Your task to perform on an android device: toggle javascript in the chrome app Image 0: 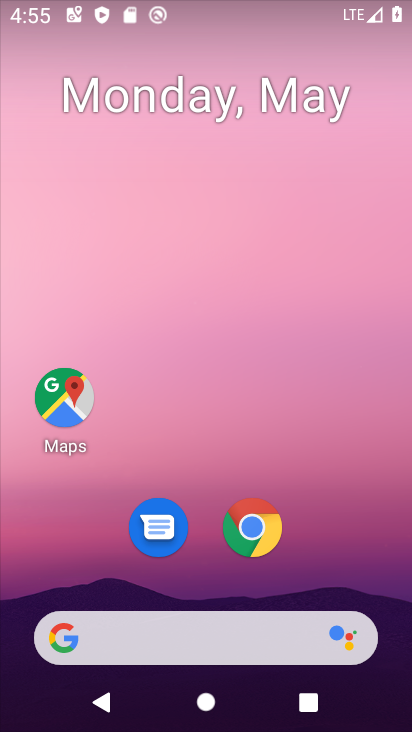
Step 0: press home button
Your task to perform on an android device: toggle javascript in the chrome app Image 1: 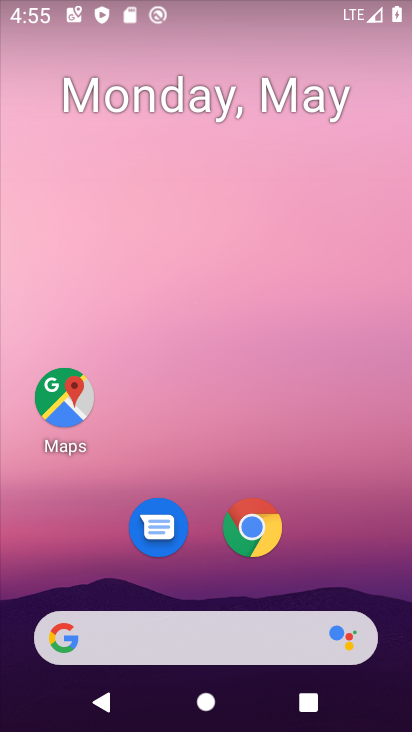
Step 1: click (266, 533)
Your task to perform on an android device: toggle javascript in the chrome app Image 2: 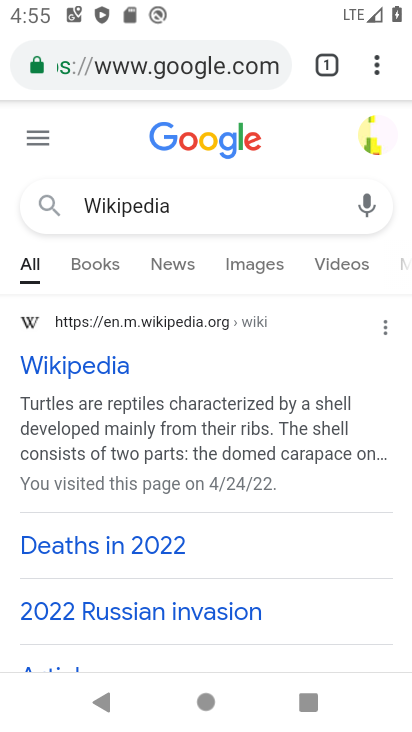
Step 2: click (377, 60)
Your task to perform on an android device: toggle javascript in the chrome app Image 3: 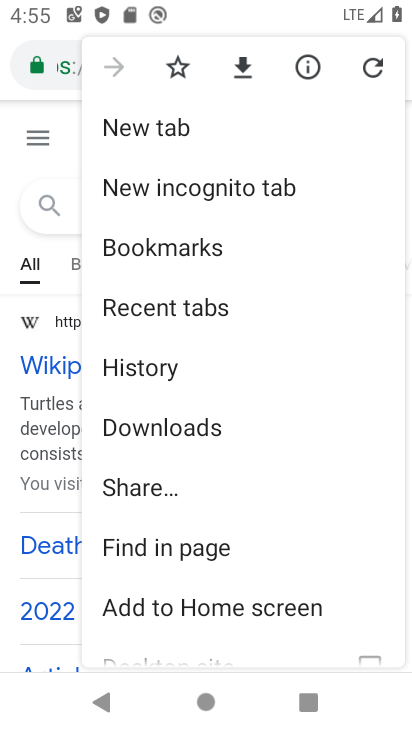
Step 3: drag from (304, 580) to (284, 208)
Your task to perform on an android device: toggle javascript in the chrome app Image 4: 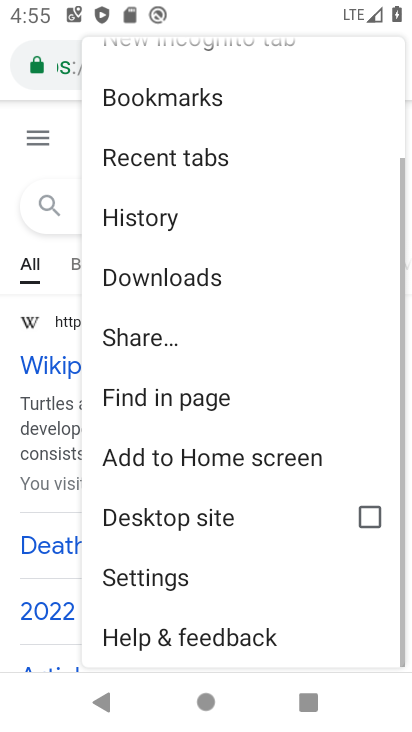
Step 4: click (109, 576)
Your task to perform on an android device: toggle javascript in the chrome app Image 5: 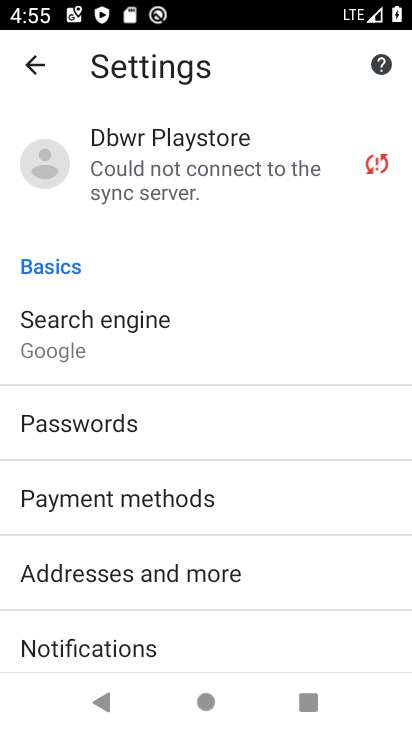
Step 5: drag from (278, 649) to (269, 321)
Your task to perform on an android device: toggle javascript in the chrome app Image 6: 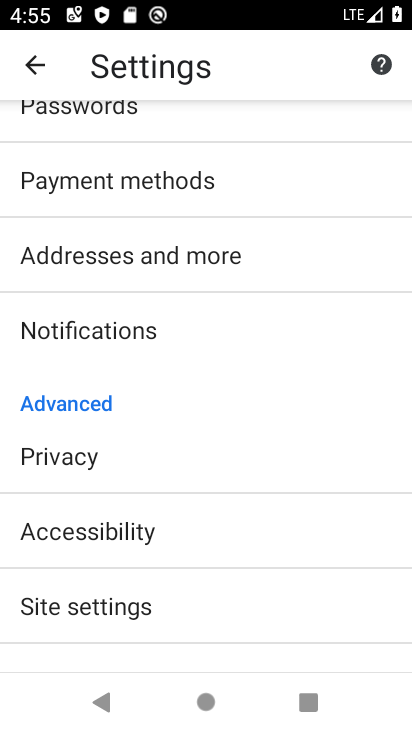
Step 6: drag from (256, 611) to (260, 316)
Your task to perform on an android device: toggle javascript in the chrome app Image 7: 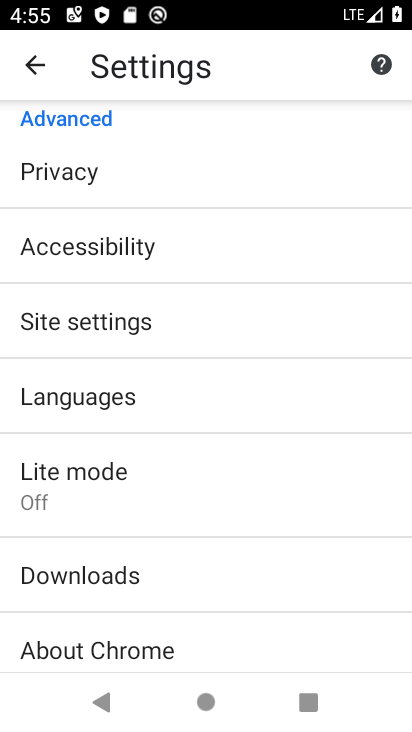
Step 7: click (78, 327)
Your task to perform on an android device: toggle javascript in the chrome app Image 8: 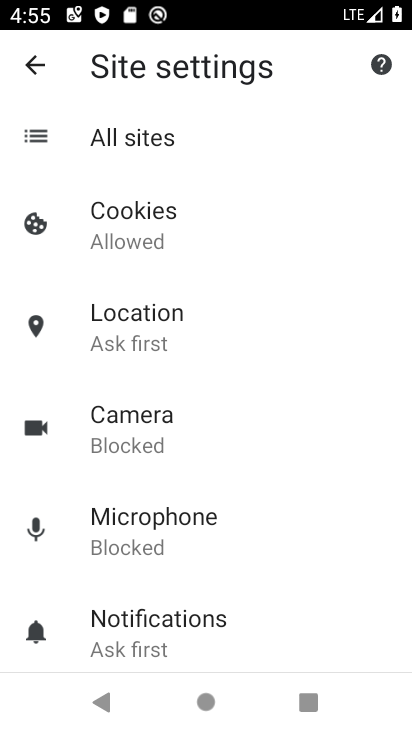
Step 8: drag from (290, 624) to (288, 309)
Your task to perform on an android device: toggle javascript in the chrome app Image 9: 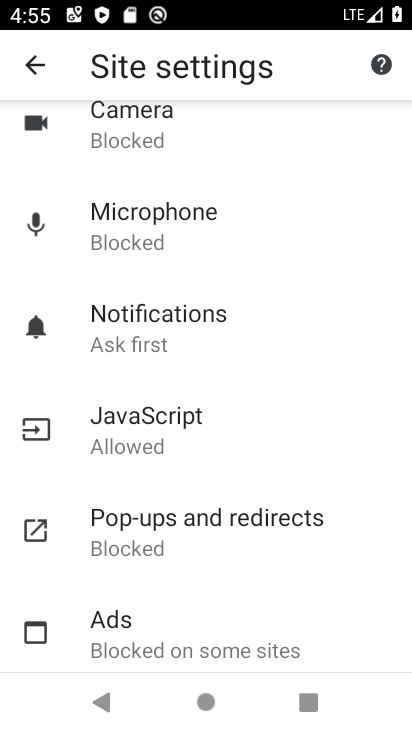
Step 9: click (124, 439)
Your task to perform on an android device: toggle javascript in the chrome app Image 10: 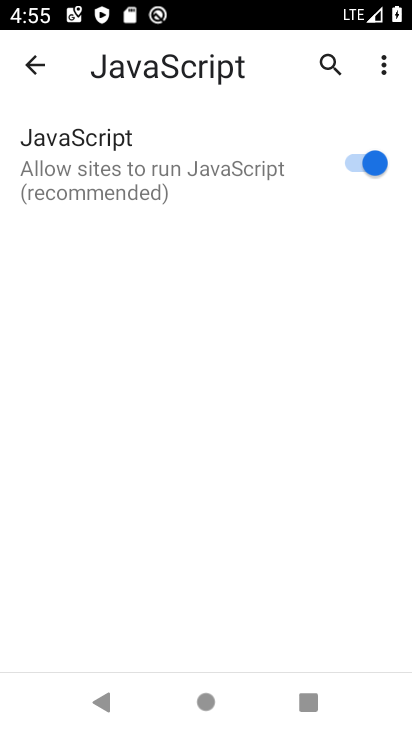
Step 10: click (348, 162)
Your task to perform on an android device: toggle javascript in the chrome app Image 11: 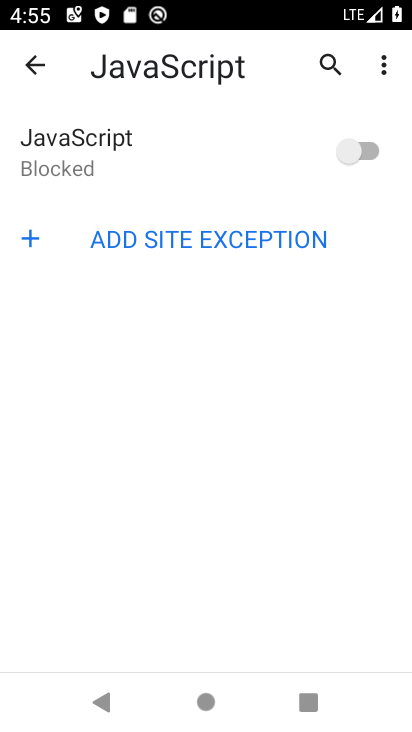
Step 11: task complete